Your task to perform on an android device: check android version Image 0: 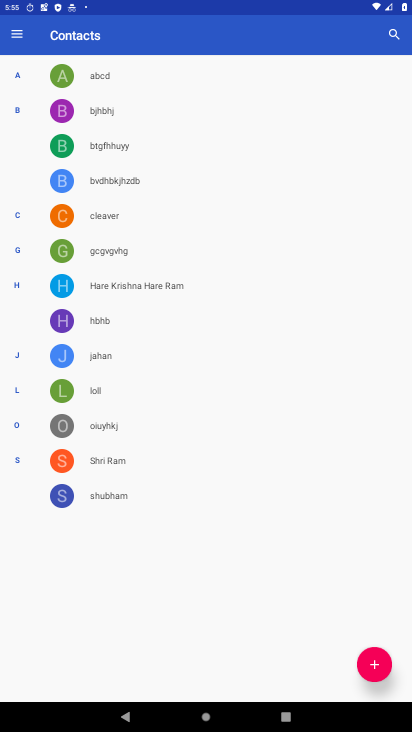
Step 0: press home button
Your task to perform on an android device: check android version Image 1: 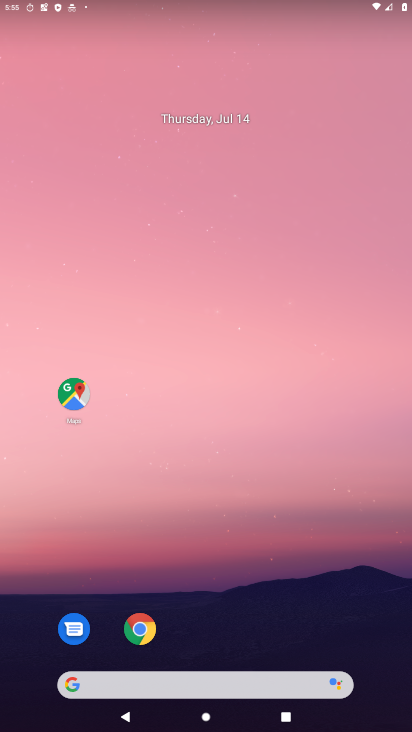
Step 1: drag from (231, 668) to (234, 0)
Your task to perform on an android device: check android version Image 2: 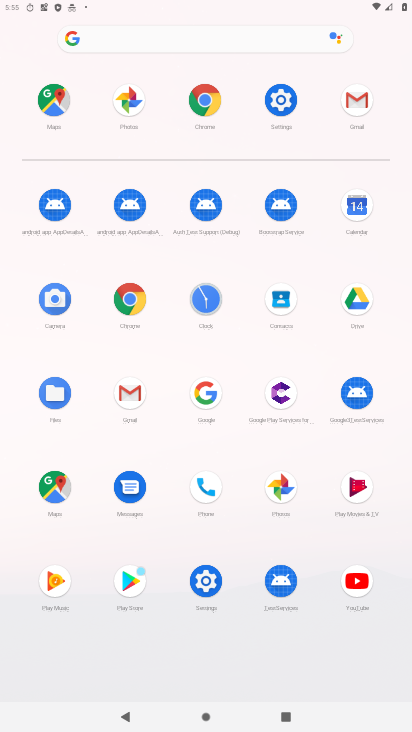
Step 2: click (130, 293)
Your task to perform on an android device: check android version Image 3: 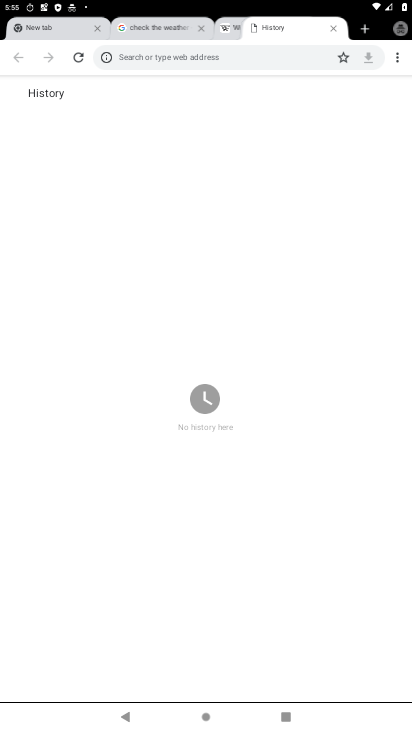
Step 3: click (402, 56)
Your task to perform on an android device: check android version Image 4: 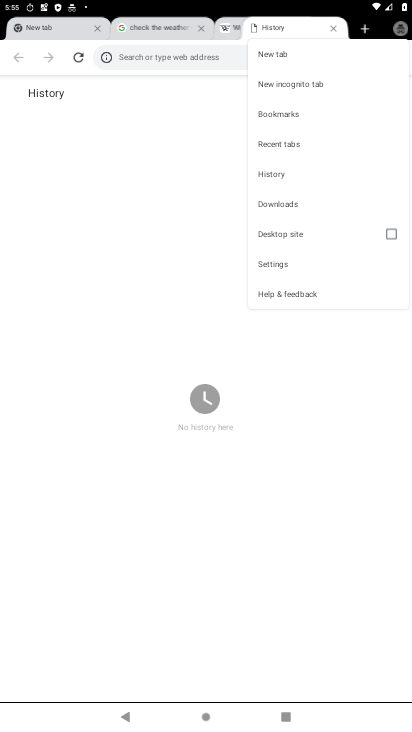
Step 4: click (312, 287)
Your task to perform on an android device: check android version Image 5: 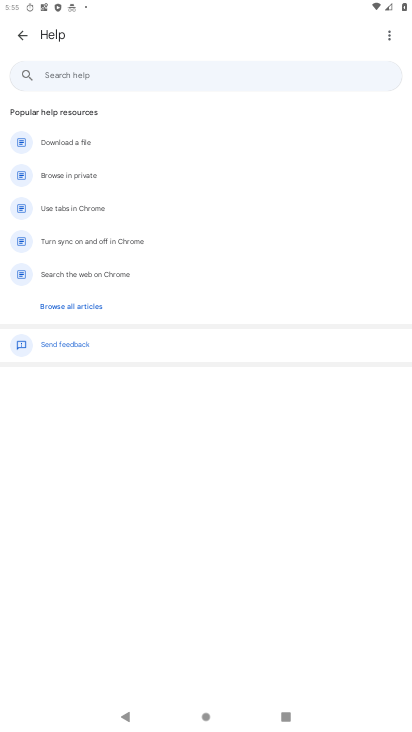
Step 5: click (385, 30)
Your task to perform on an android device: check android version Image 6: 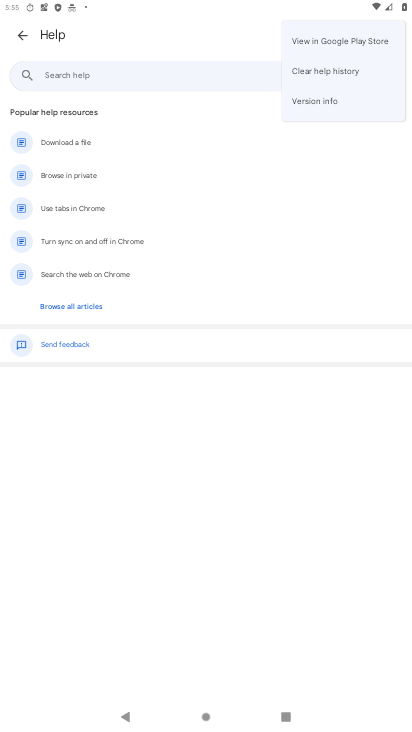
Step 6: click (347, 95)
Your task to perform on an android device: check android version Image 7: 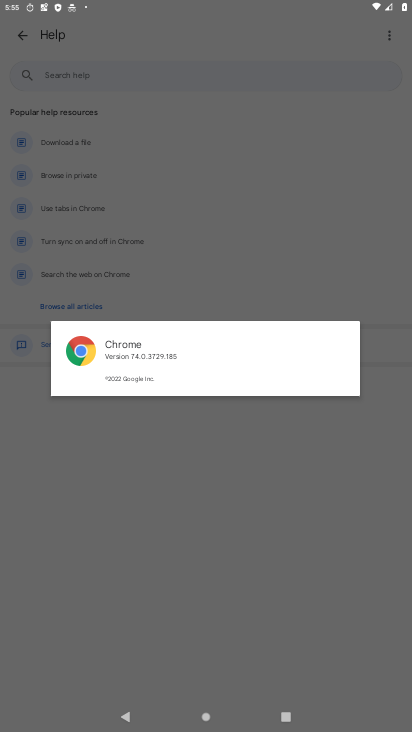
Step 7: task complete